Your task to perform on an android device: turn off picture-in-picture Image 0: 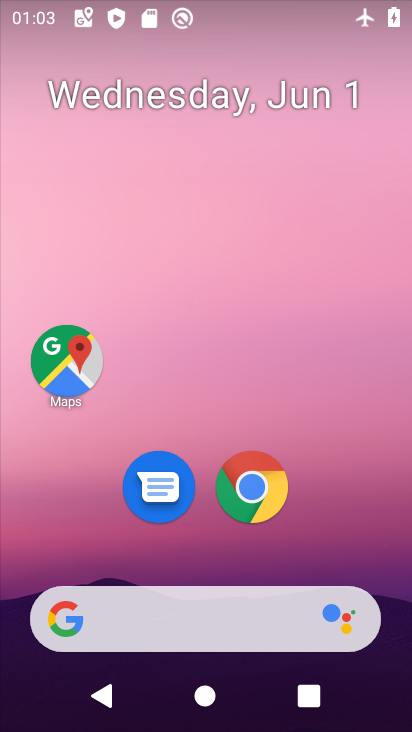
Step 0: drag from (310, 547) to (273, 216)
Your task to perform on an android device: turn off picture-in-picture Image 1: 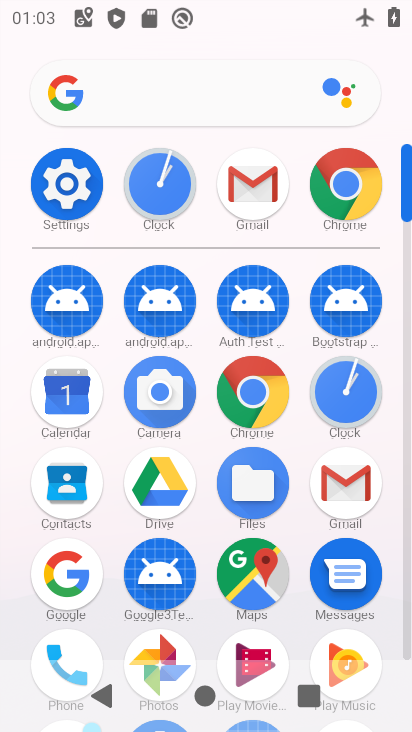
Step 1: click (339, 190)
Your task to perform on an android device: turn off picture-in-picture Image 2: 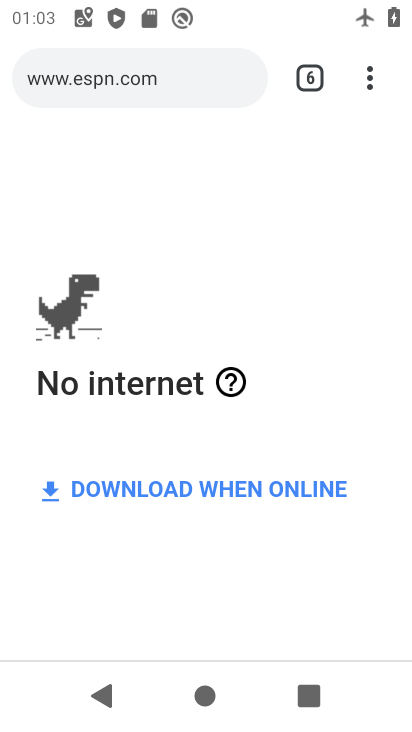
Step 2: click (355, 73)
Your task to perform on an android device: turn off picture-in-picture Image 3: 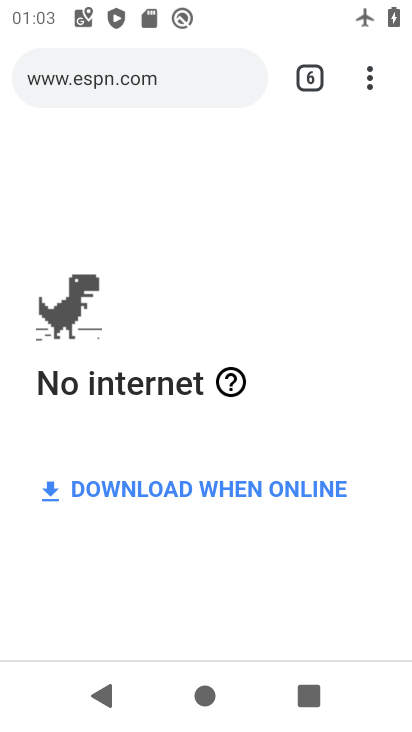
Step 3: click (363, 79)
Your task to perform on an android device: turn off picture-in-picture Image 4: 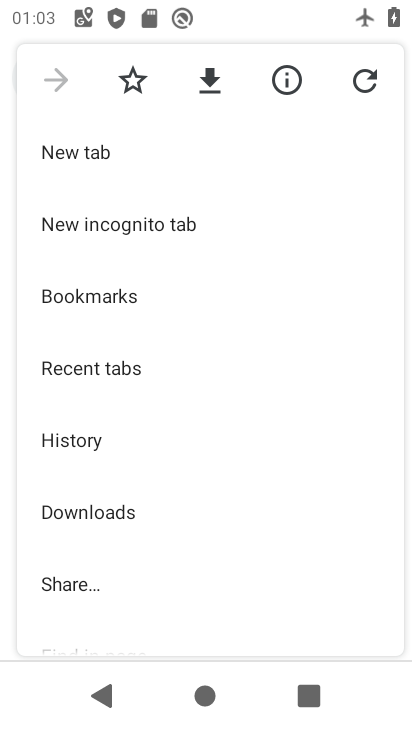
Step 4: press back button
Your task to perform on an android device: turn off picture-in-picture Image 5: 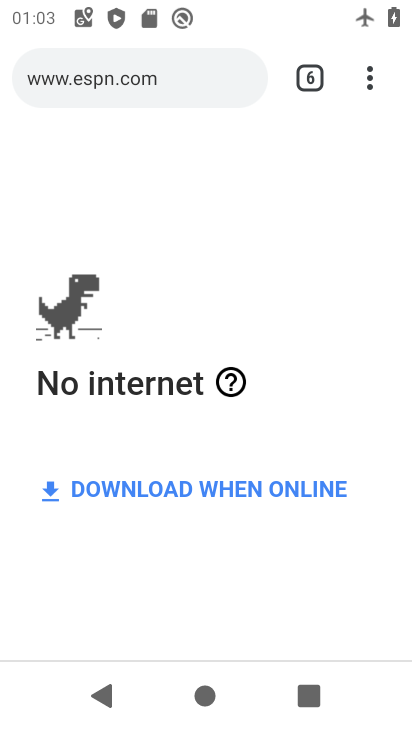
Step 5: press home button
Your task to perform on an android device: turn off picture-in-picture Image 6: 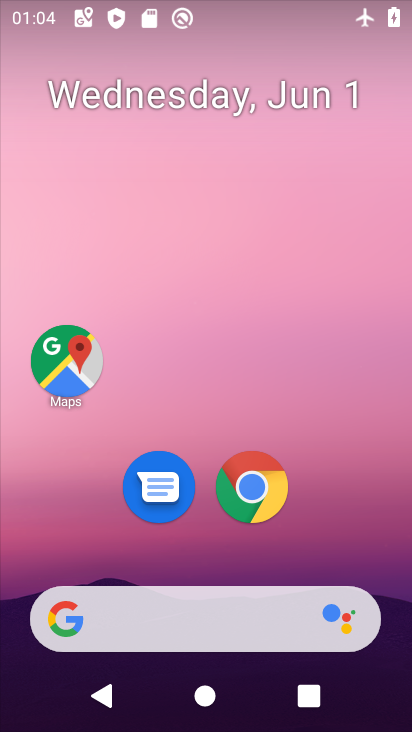
Step 6: drag from (305, 549) to (326, 192)
Your task to perform on an android device: turn off picture-in-picture Image 7: 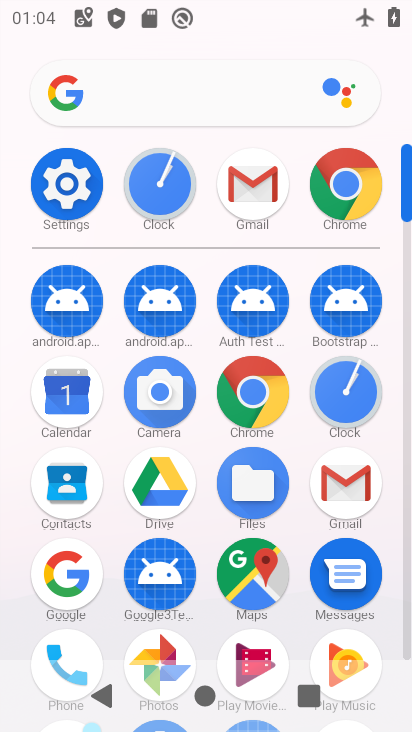
Step 7: click (67, 179)
Your task to perform on an android device: turn off picture-in-picture Image 8: 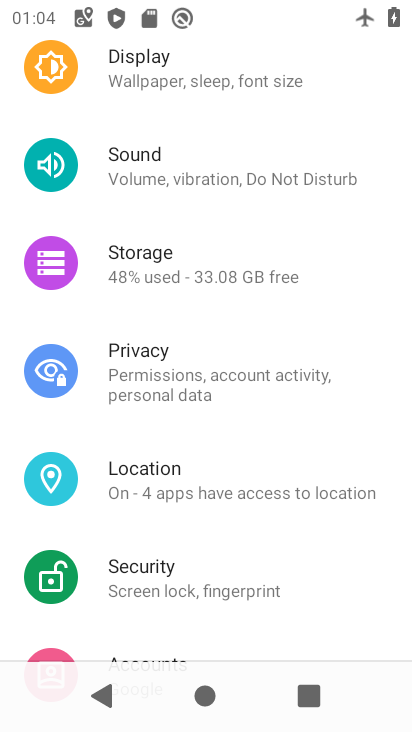
Step 8: drag from (200, 165) to (197, 567)
Your task to perform on an android device: turn off picture-in-picture Image 9: 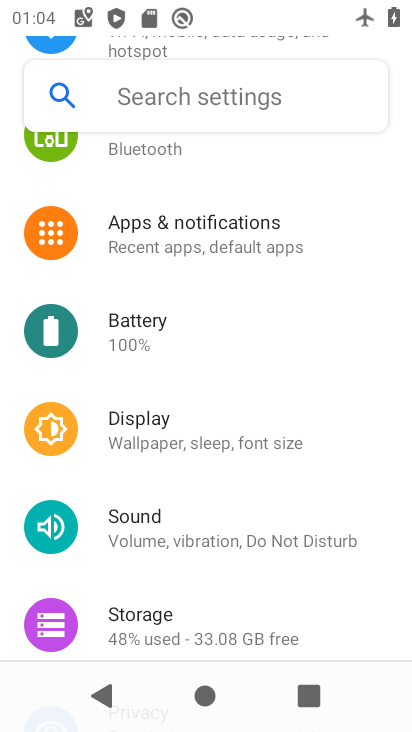
Step 9: drag from (224, 230) to (221, 502)
Your task to perform on an android device: turn off picture-in-picture Image 10: 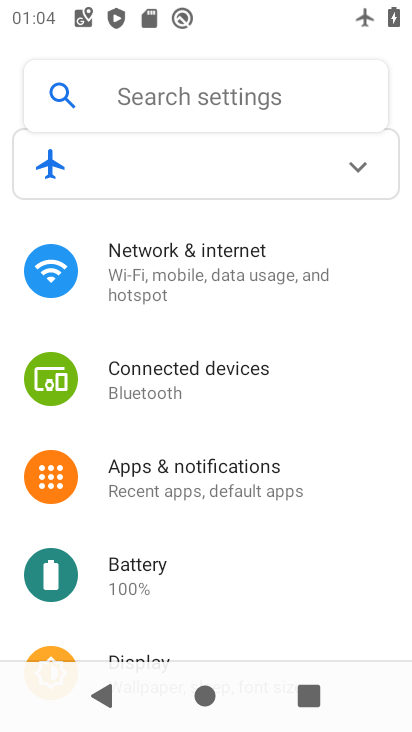
Step 10: click (202, 458)
Your task to perform on an android device: turn off picture-in-picture Image 11: 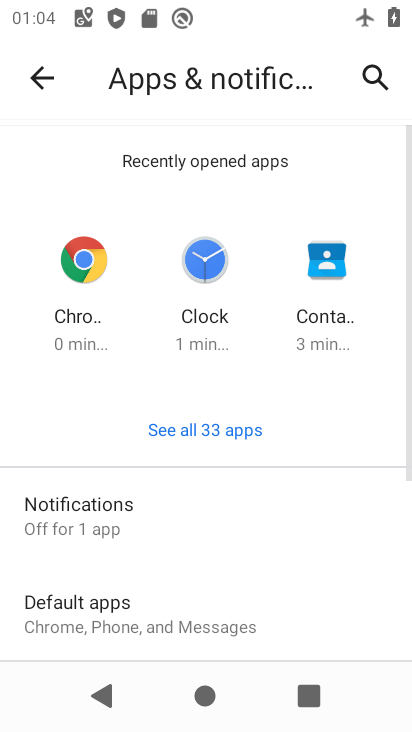
Step 11: drag from (352, 573) to (280, 222)
Your task to perform on an android device: turn off picture-in-picture Image 12: 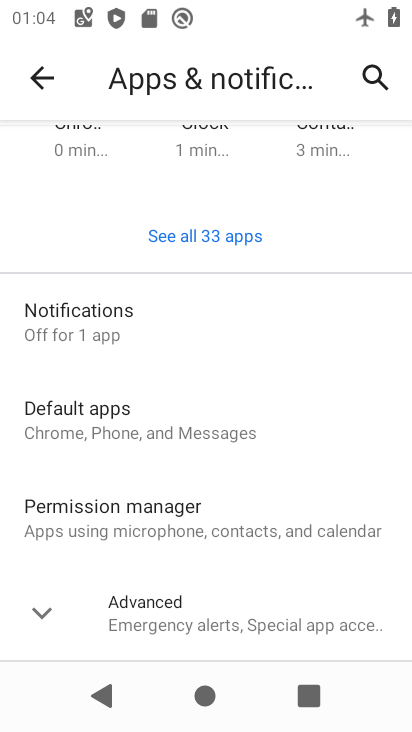
Step 12: drag from (238, 583) to (232, 442)
Your task to perform on an android device: turn off picture-in-picture Image 13: 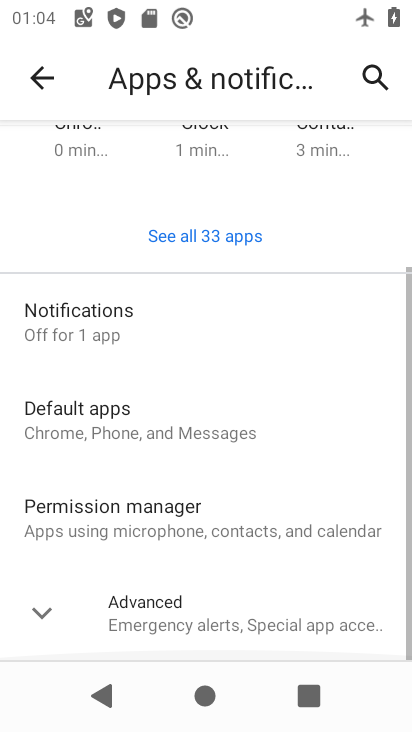
Step 13: click (218, 635)
Your task to perform on an android device: turn off picture-in-picture Image 14: 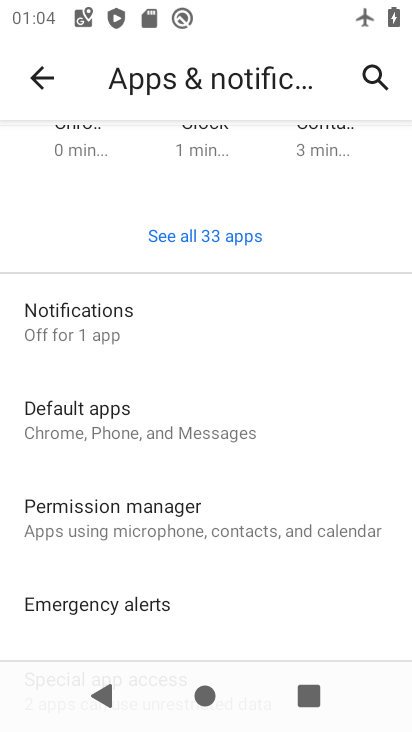
Step 14: drag from (226, 594) to (229, 343)
Your task to perform on an android device: turn off picture-in-picture Image 15: 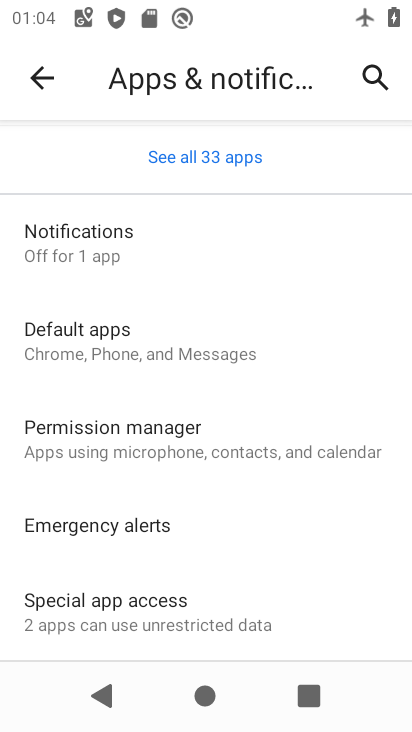
Step 15: click (192, 607)
Your task to perform on an android device: turn off picture-in-picture Image 16: 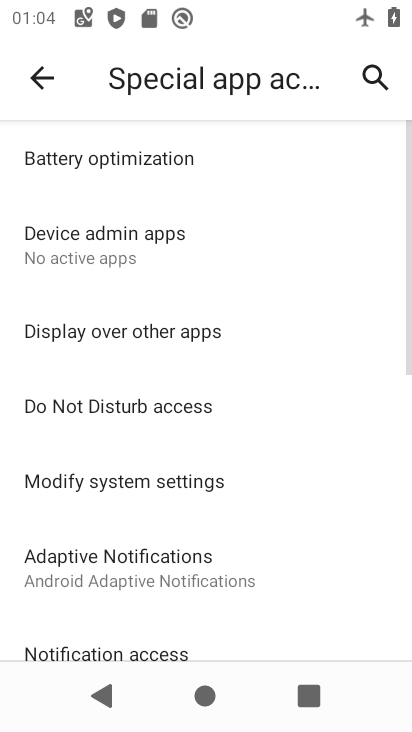
Step 16: drag from (192, 544) to (221, 212)
Your task to perform on an android device: turn off picture-in-picture Image 17: 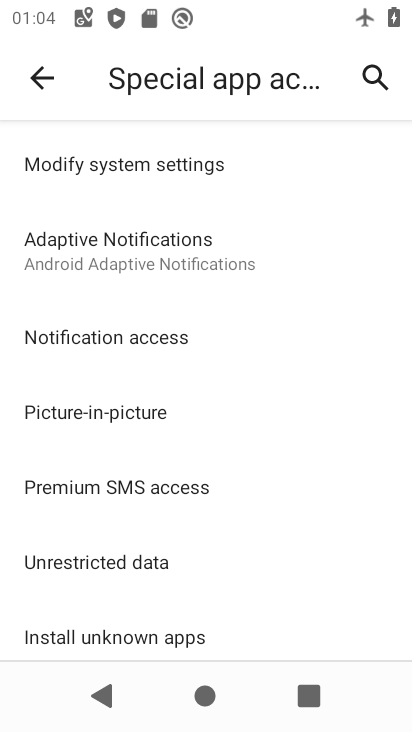
Step 17: drag from (218, 551) to (246, 269)
Your task to perform on an android device: turn off picture-in-picture Image 18: 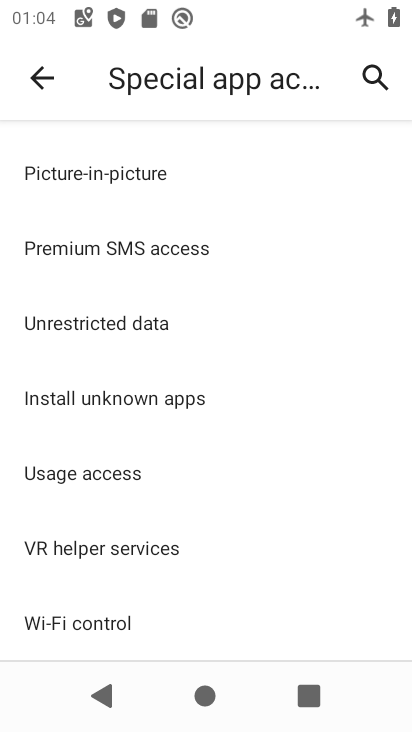
Step 18: drag from (127, 539) to (256, 206)
Your task to perform on an android device: turn off picture-in-picture Image 19: 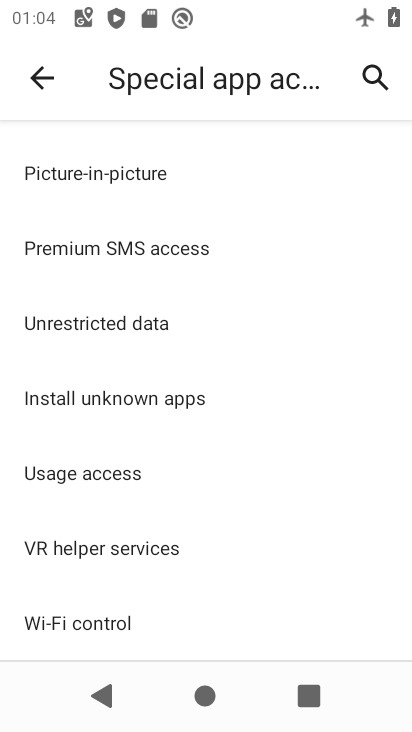
Step 19: click (145, 171)
Your task to perform on an android device: turn off picture-in-picture Image 20: 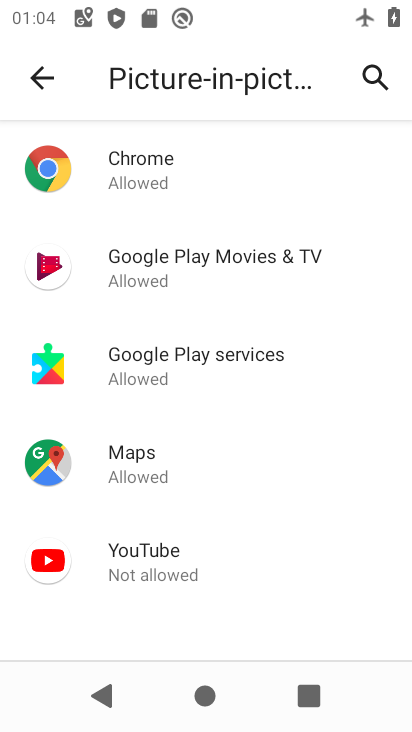
Step 20: click (179, 573)
Your task to perform on an android device: turn off picture-in-picture Image 21: 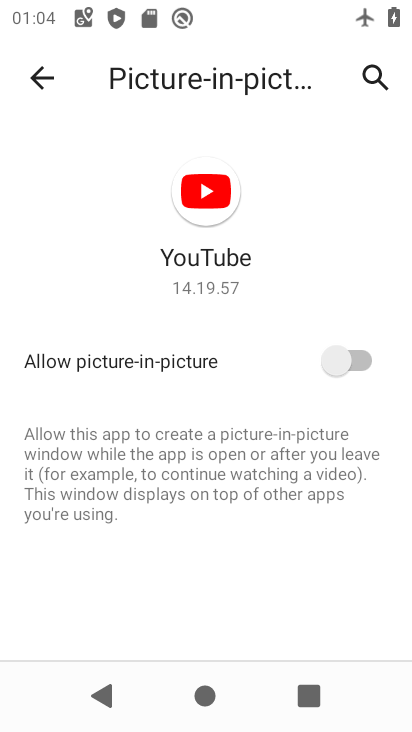
Step 21: task complete